Your task to perform on an android device: search for starred emails in the gmail app Image 0: 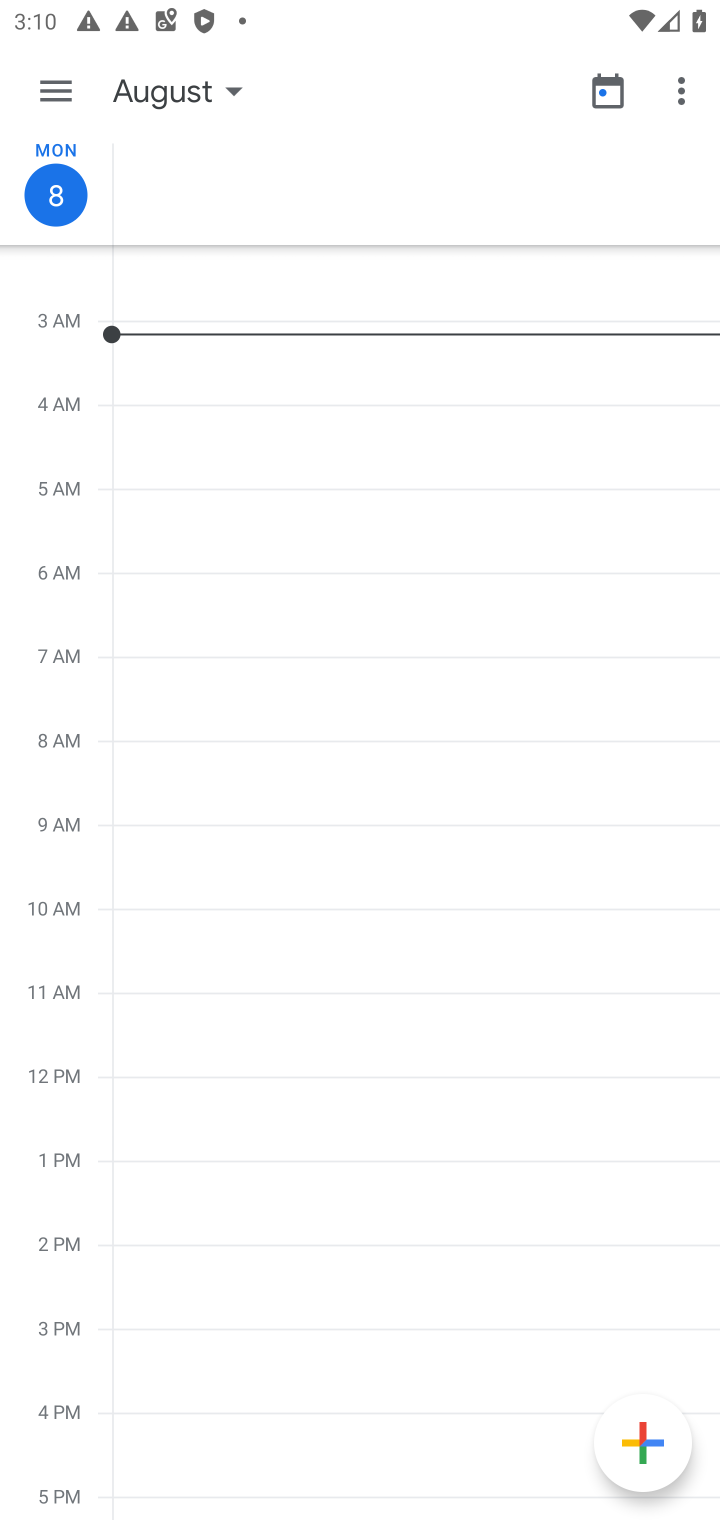
Step 0: press back button
Your task to perform on an android device: search for starred emails in the gmail app Image 1: 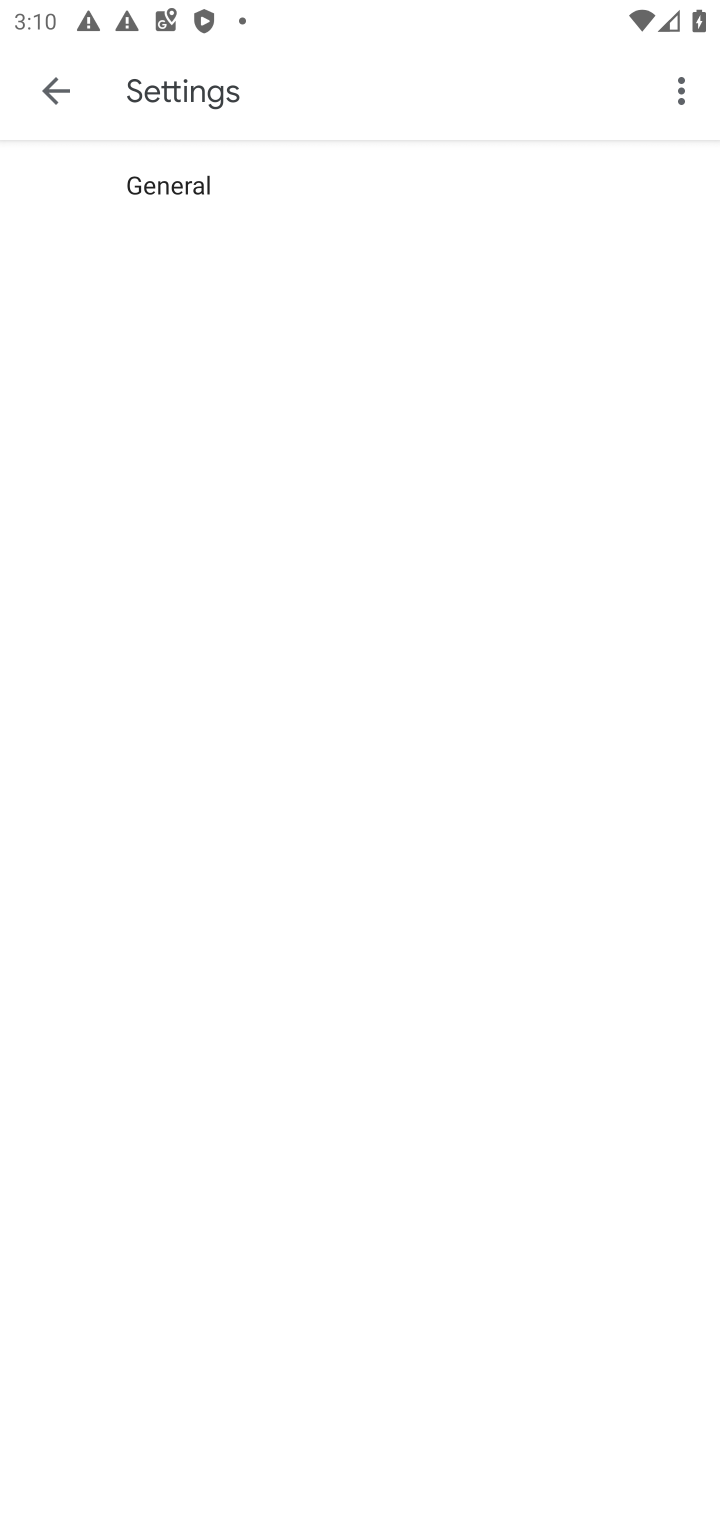
Step 1: press back button
Your task to perform on an android device: search for starred emails in the gmail app Image 2: 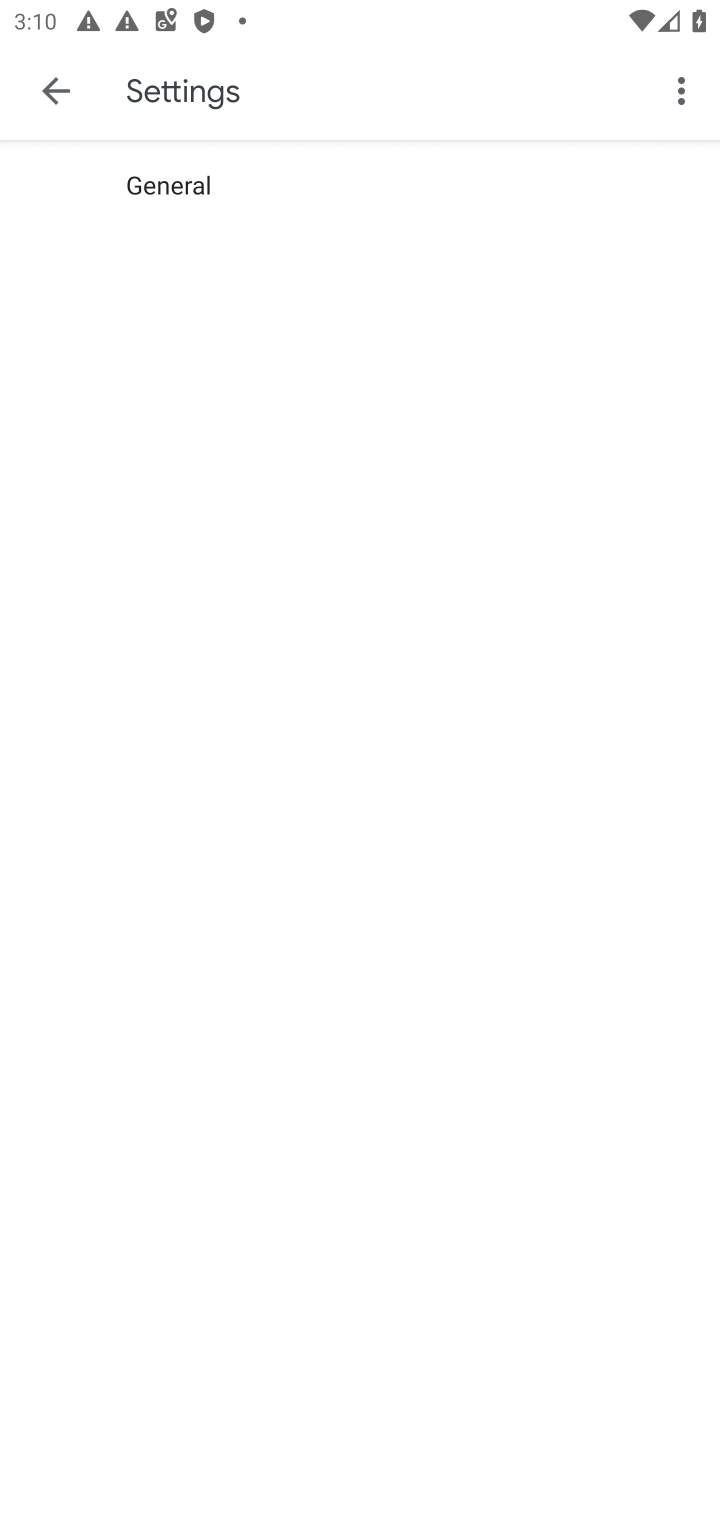
Step 2: press back button
Your task to perform on an android device: search for starred emails in the gmail app Image 3: 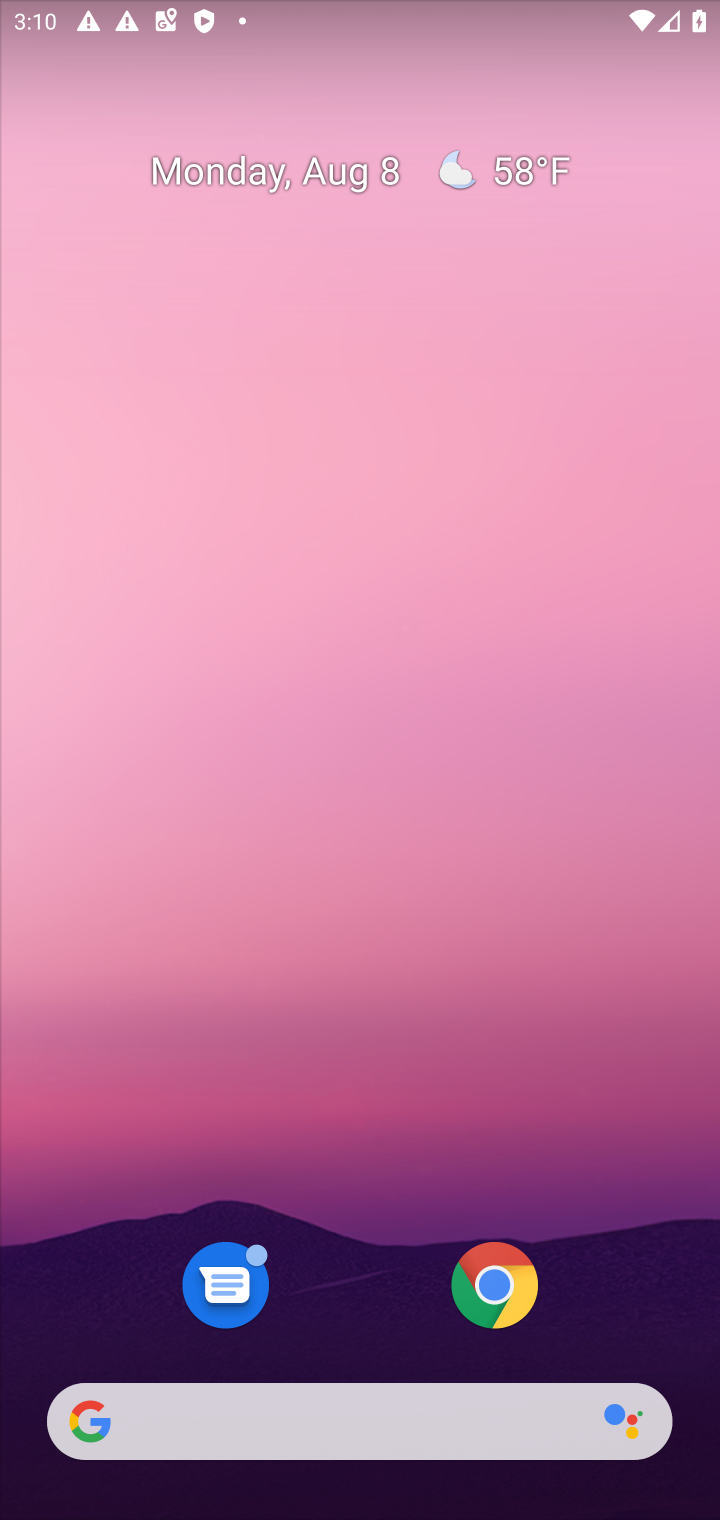
Step 3: press home button
Your task to perform on an android device: search for starred emails in the gmail app Image 4: 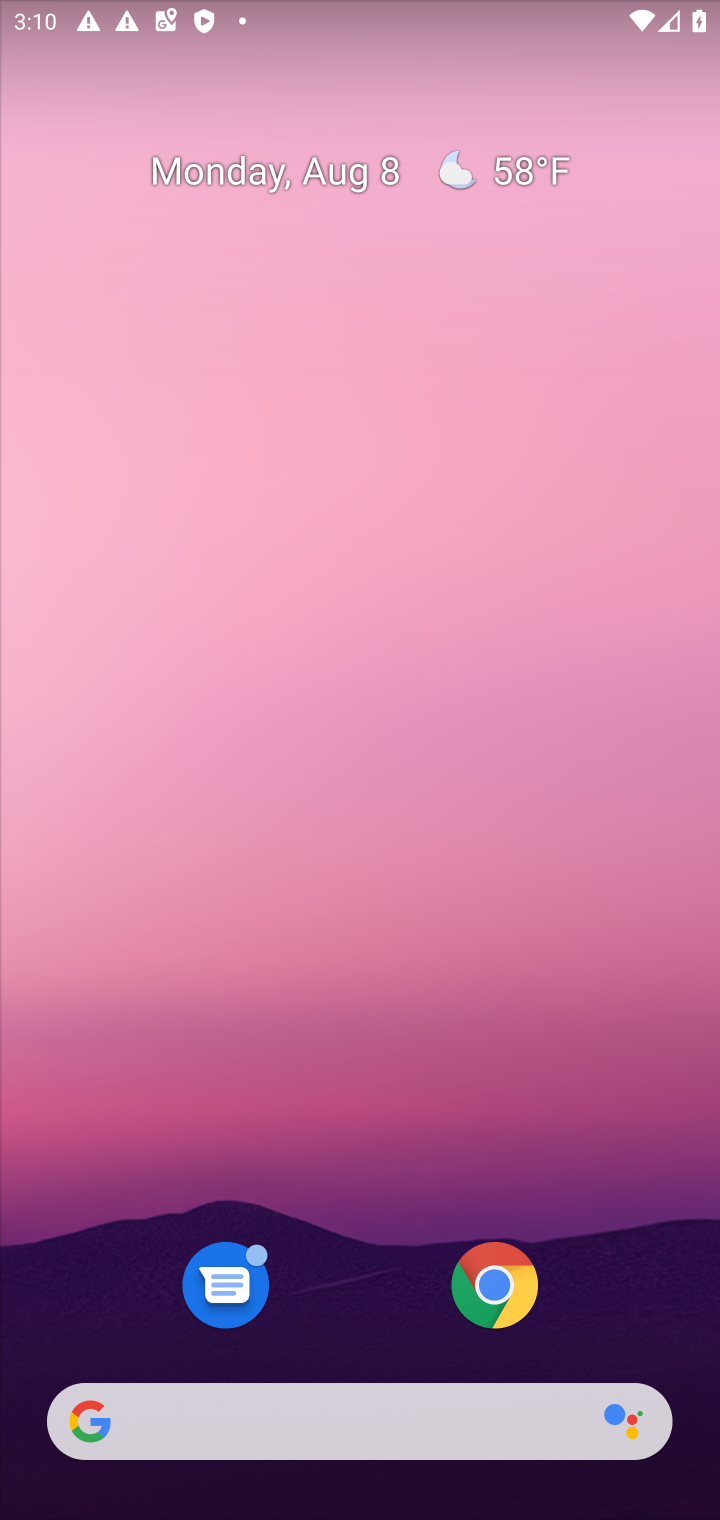
Step 4: drag from (505, 156) to (531, 7)
Your task to perform on an android device: search for starred emails in the gmail app Image 5: 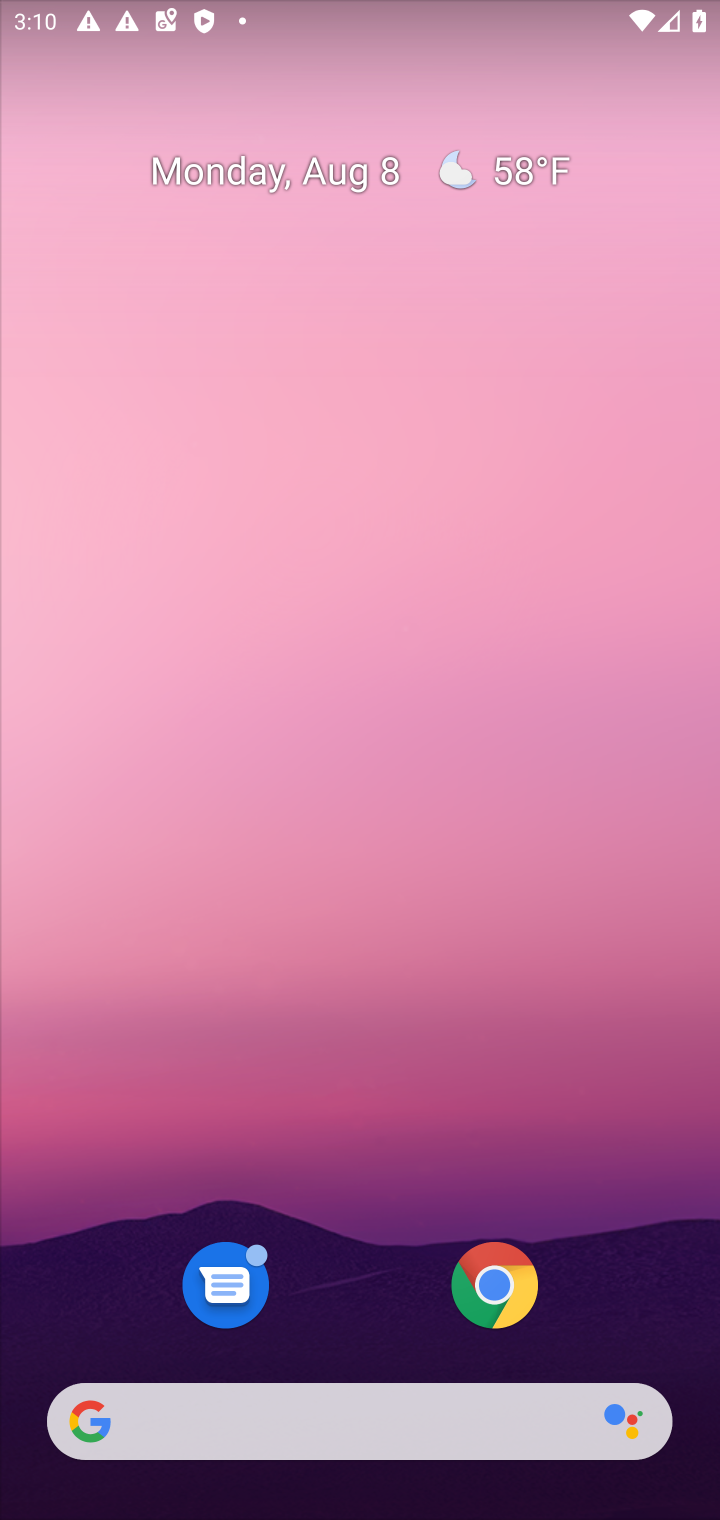
Step 5: drag from (445, 766) to (594, 79)
Your task to perform on an android device: search for starred emails in the gmail app Image 6: 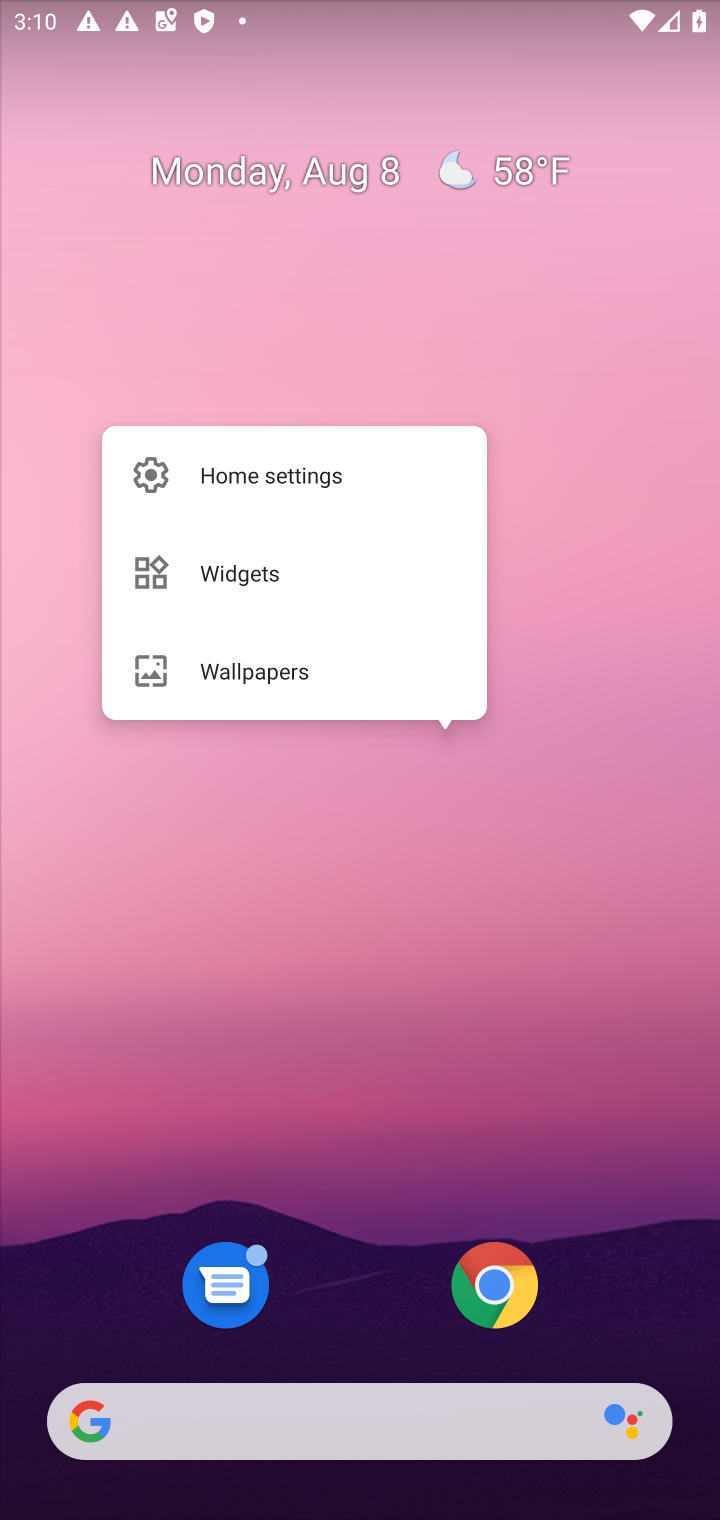
Step 6: click (369, 1266)
Your task to perform on an android device: search for starred emails in the gmail app Image 7: 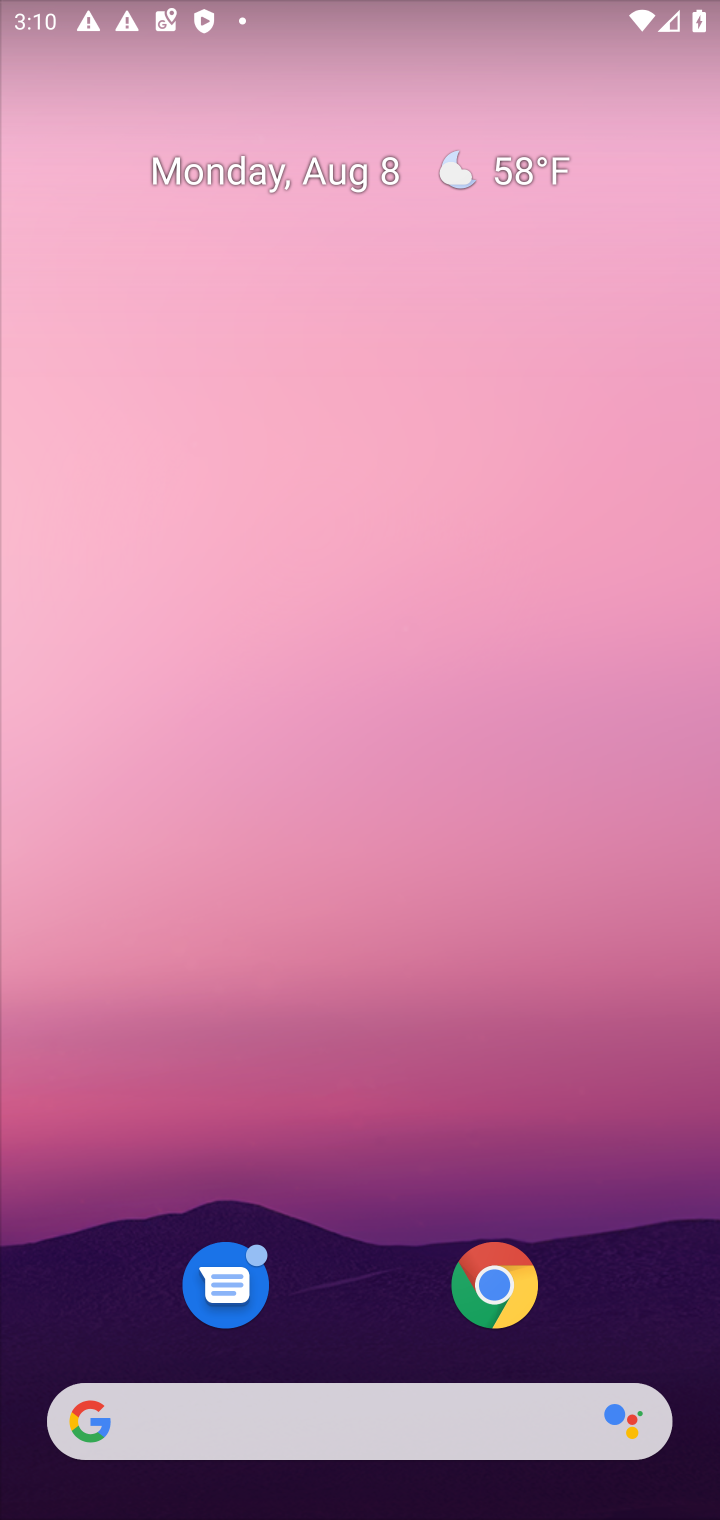
Step 7: drag from (453, 889) to (662, 75)
Your task to perform on an android device: search for starred emails in the gmail app Image 8: 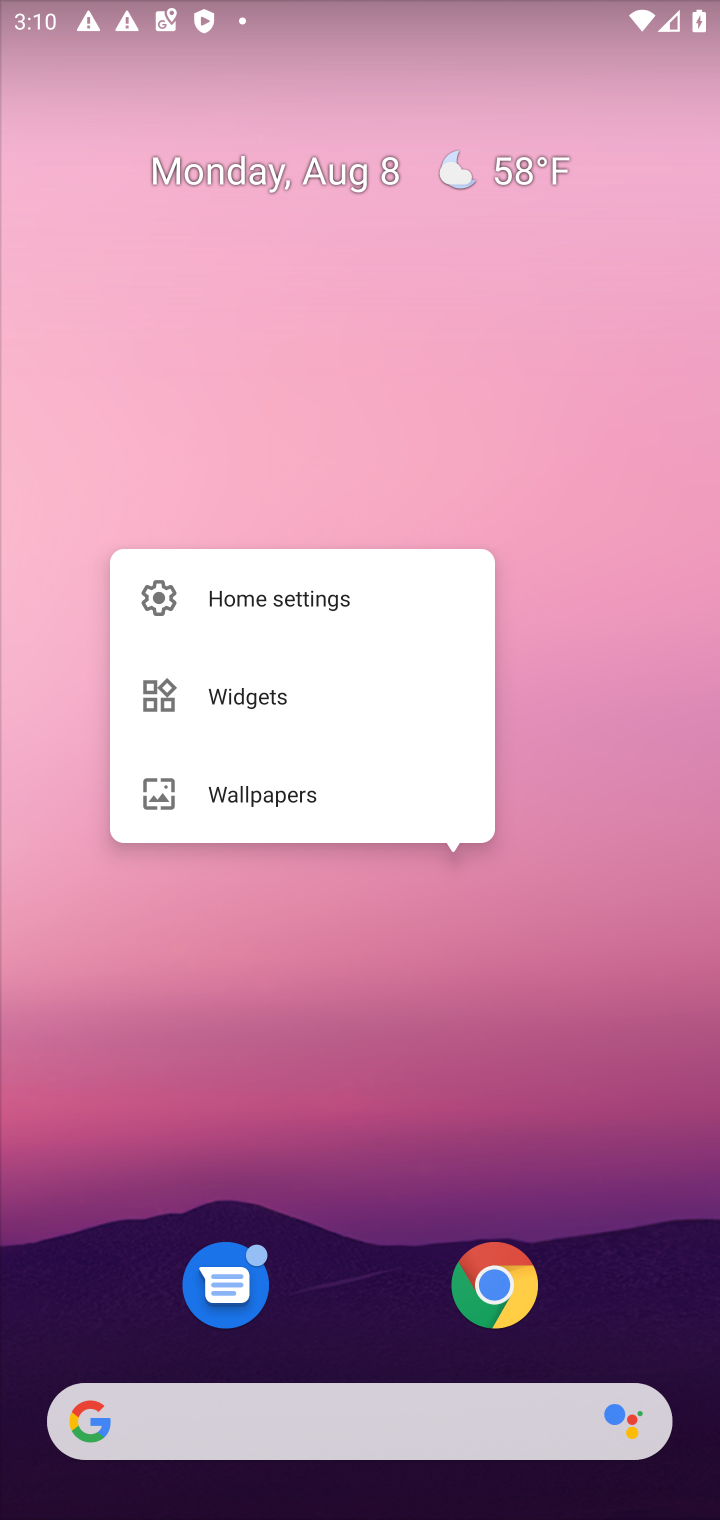
Step 8: click (500, 964)
Your task to perform on an android device: search for starred emails in the gmail app Image 9: 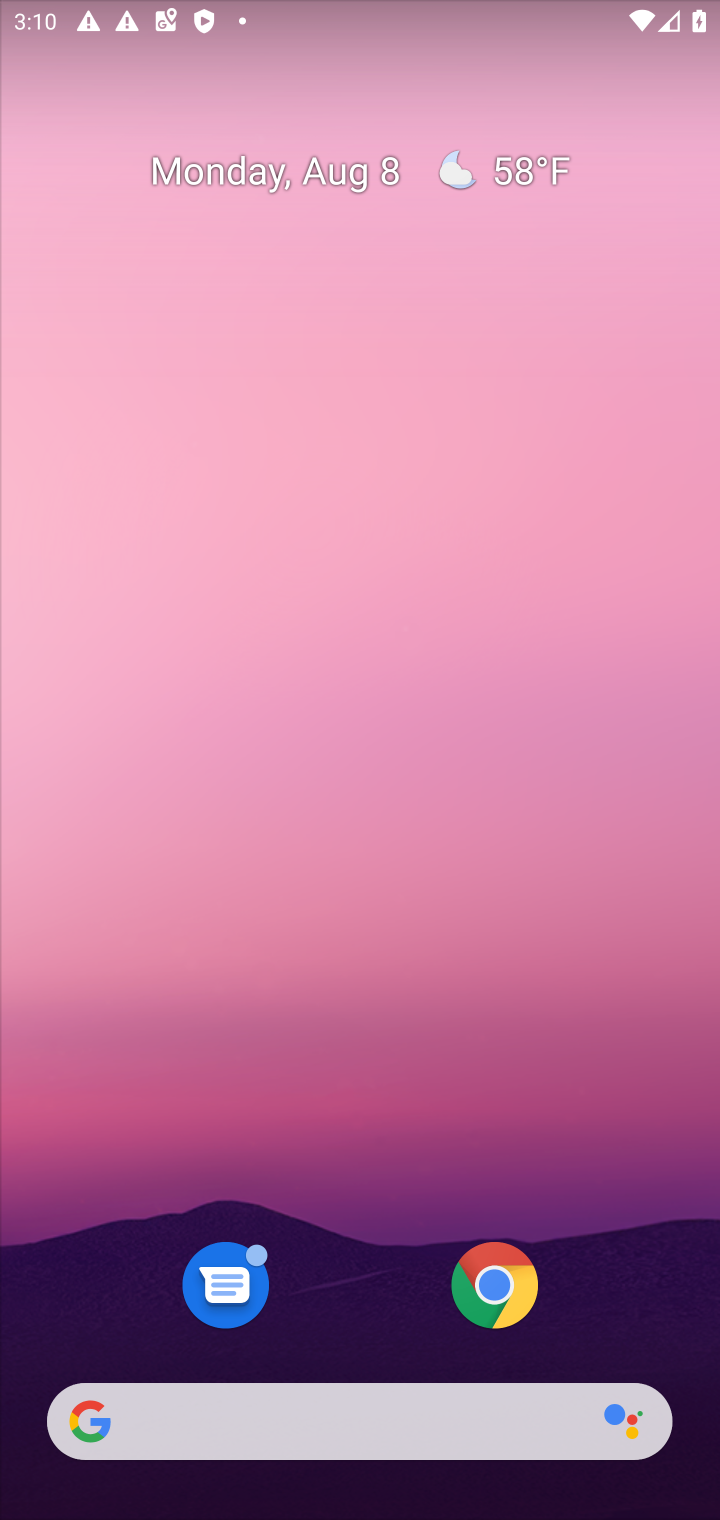
Step 9: drag from (484, 743) to (651, 107)
Your task to perform on an android device: search for starred emails in the gmail app Image 10: 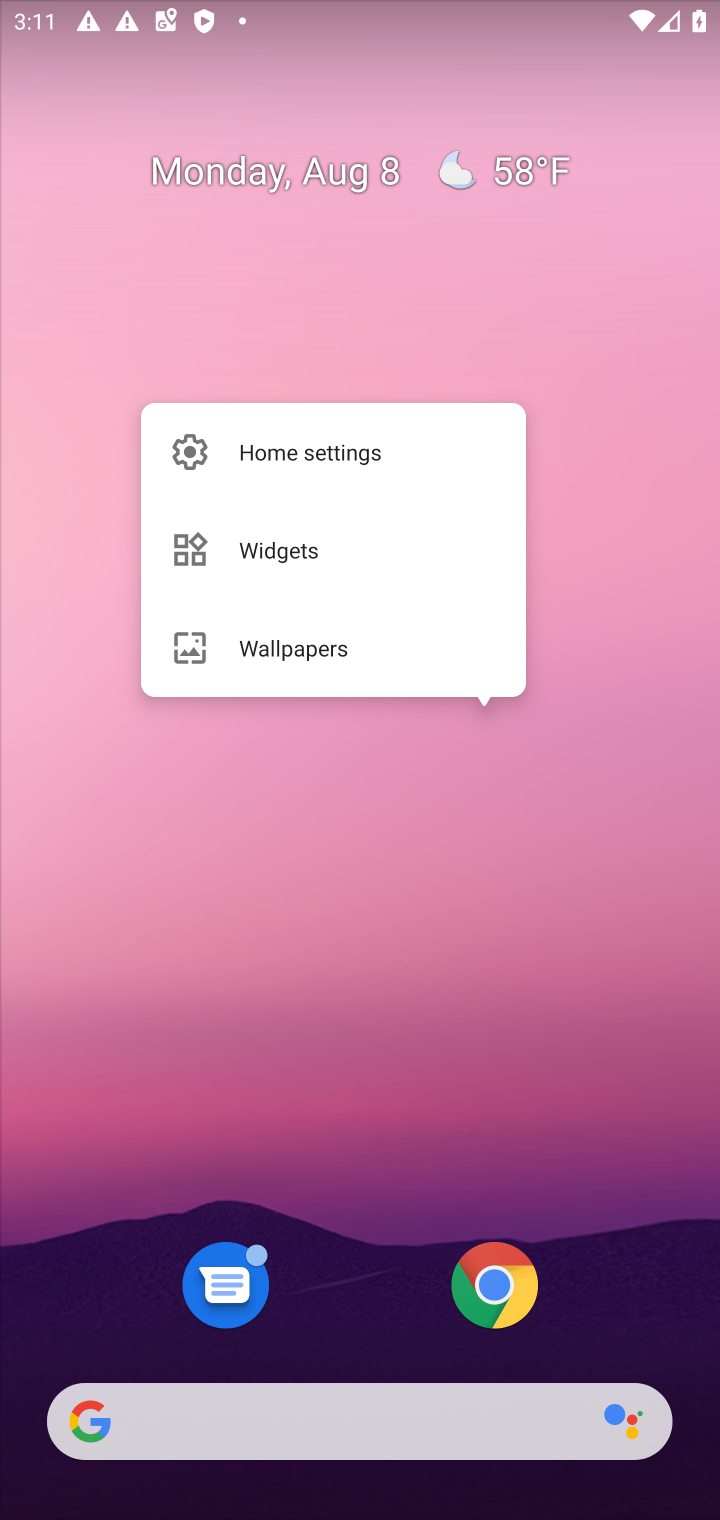
Step 10: click (637, 996)
Your task to perform on an android device: search for starred emails in the gmail app Image 11: 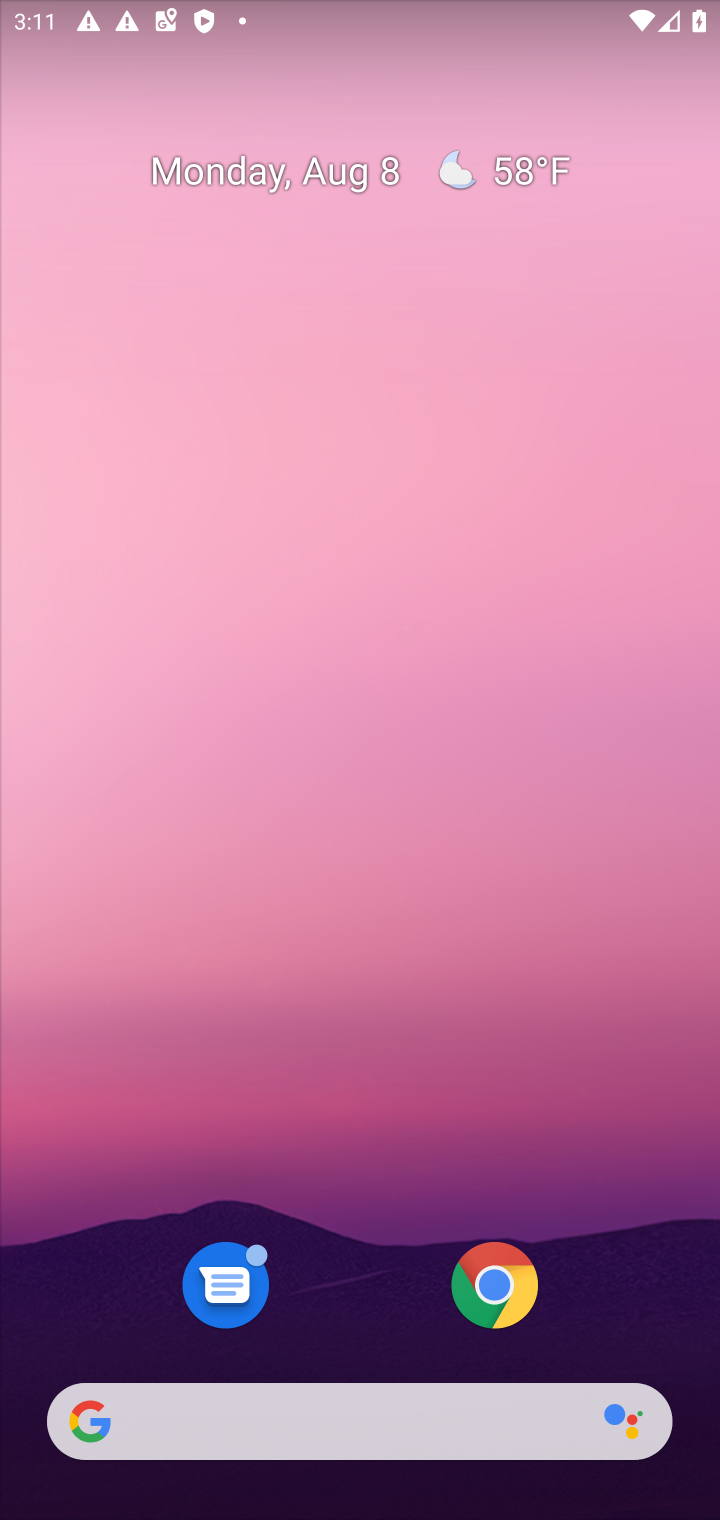
Step 11: drag from (401, 965) to (597, 0)
Your task to perform on an android device: search for starred emails in the gmail app Image 12: 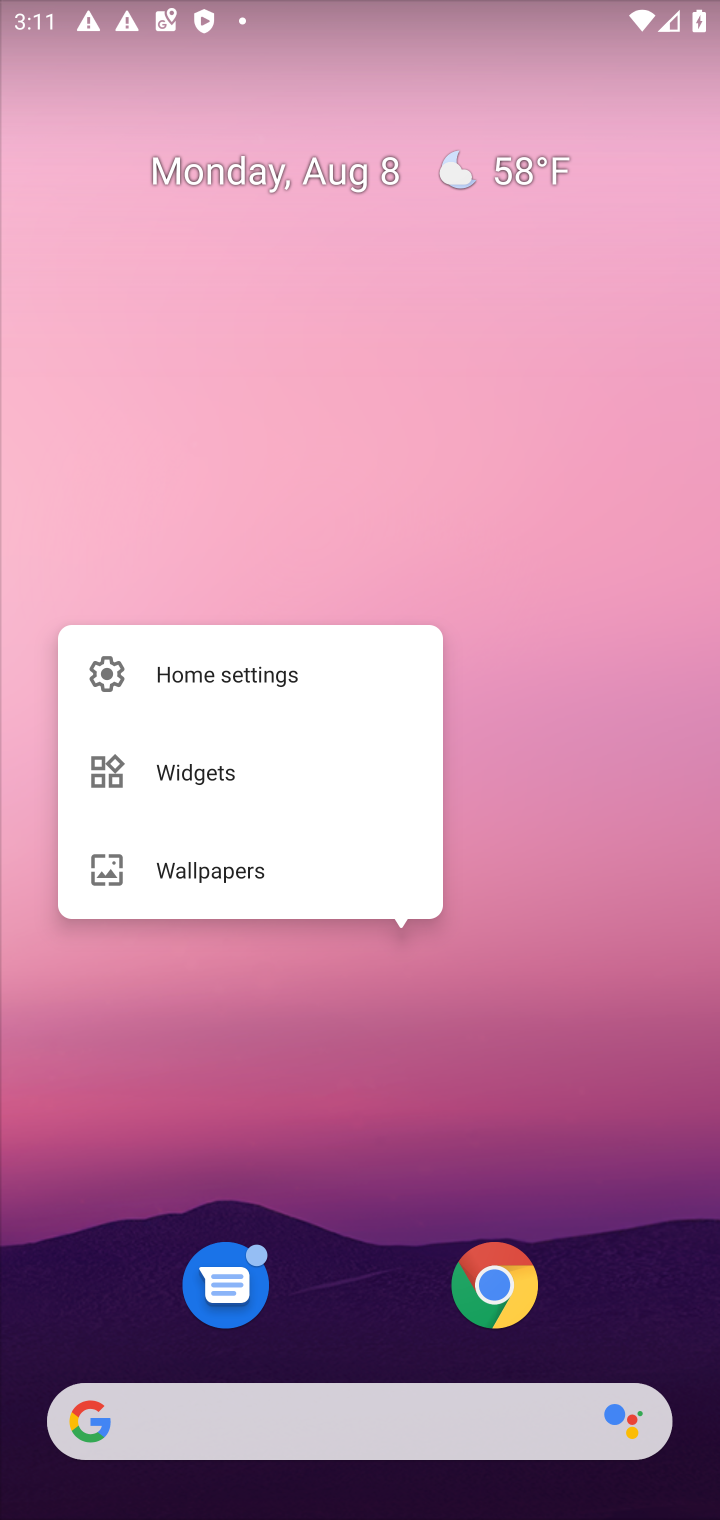
Step 12: click (330, 1289)
Your task to perform on an android device: search for starred emails in the gmail app Image 13: 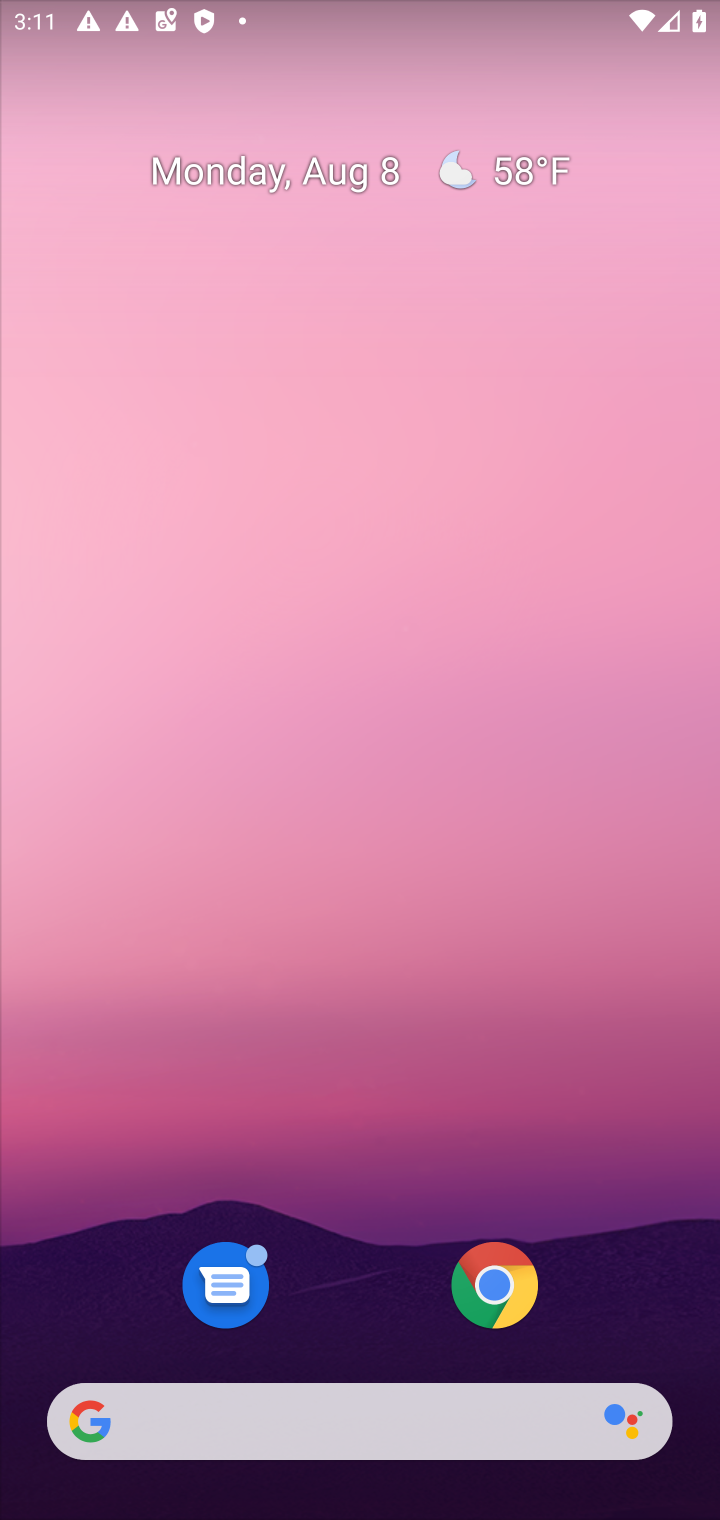
Step 13: drag from (387, 989) to (514, 38)
Your task to perform on an android device: search for starred emails in the gmail app Image 14: 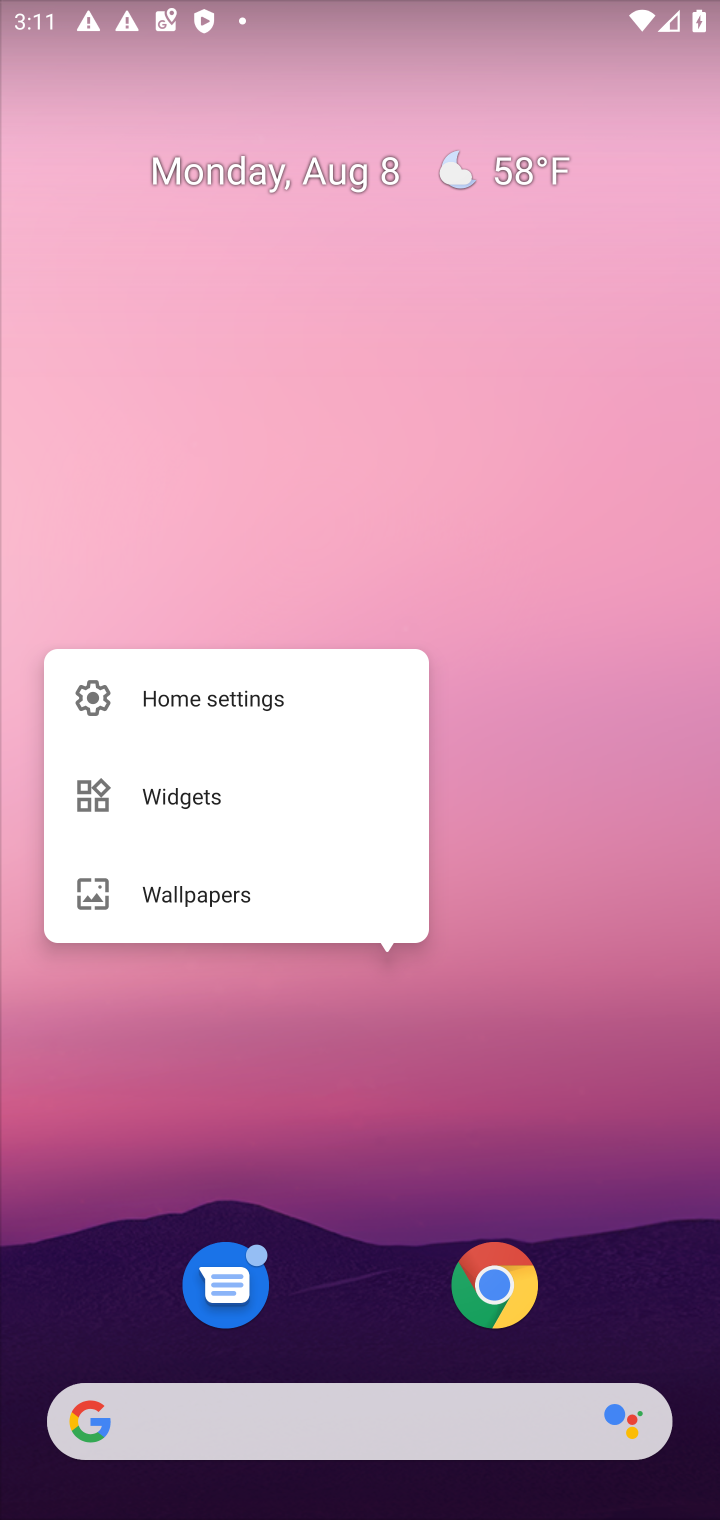
Step 14: click (353, 1239)
Your task to perform on an android device: search for starred emails in the gmail app Image 15: 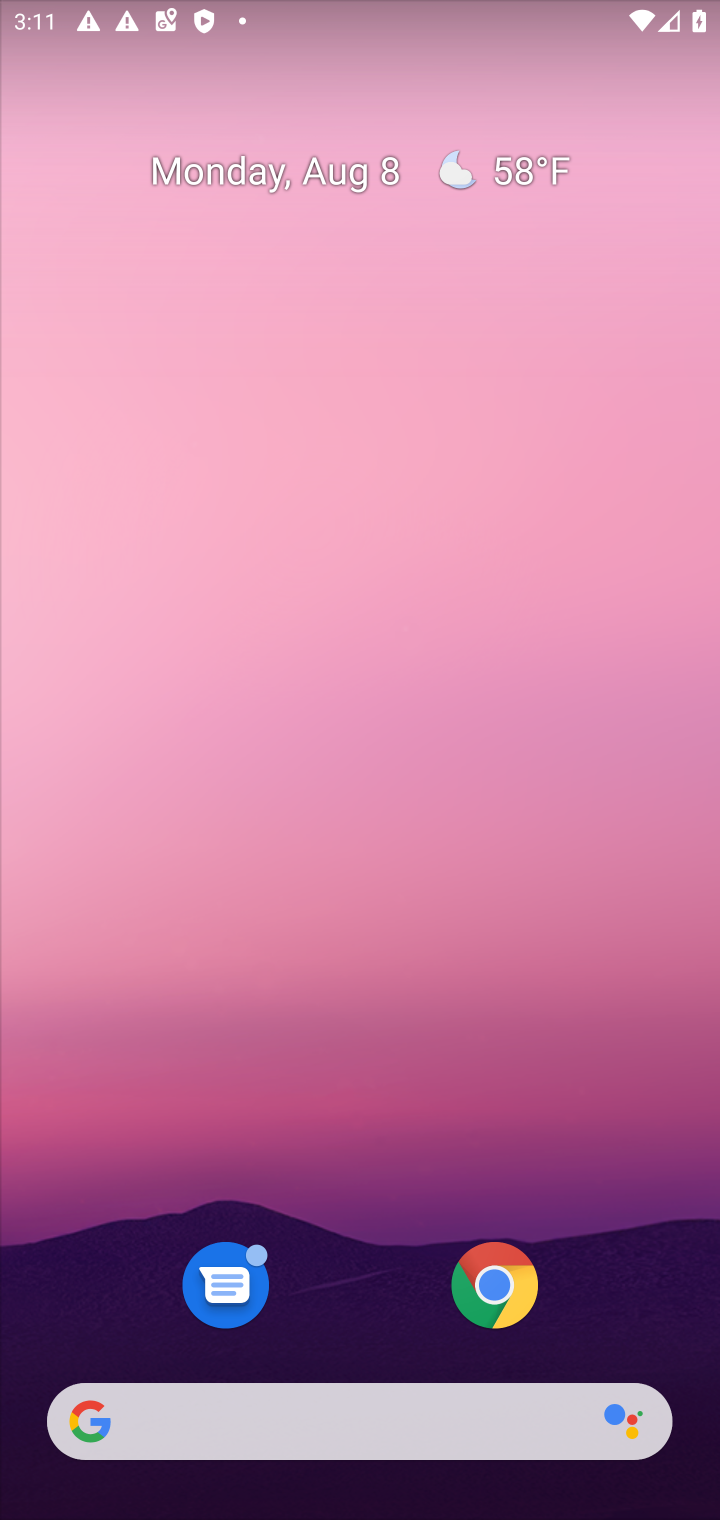
Step 15: drag from (402, 706) to (311, 1170)
Your task to perform on an android device: search for starred emails in the gmail app Image 16: 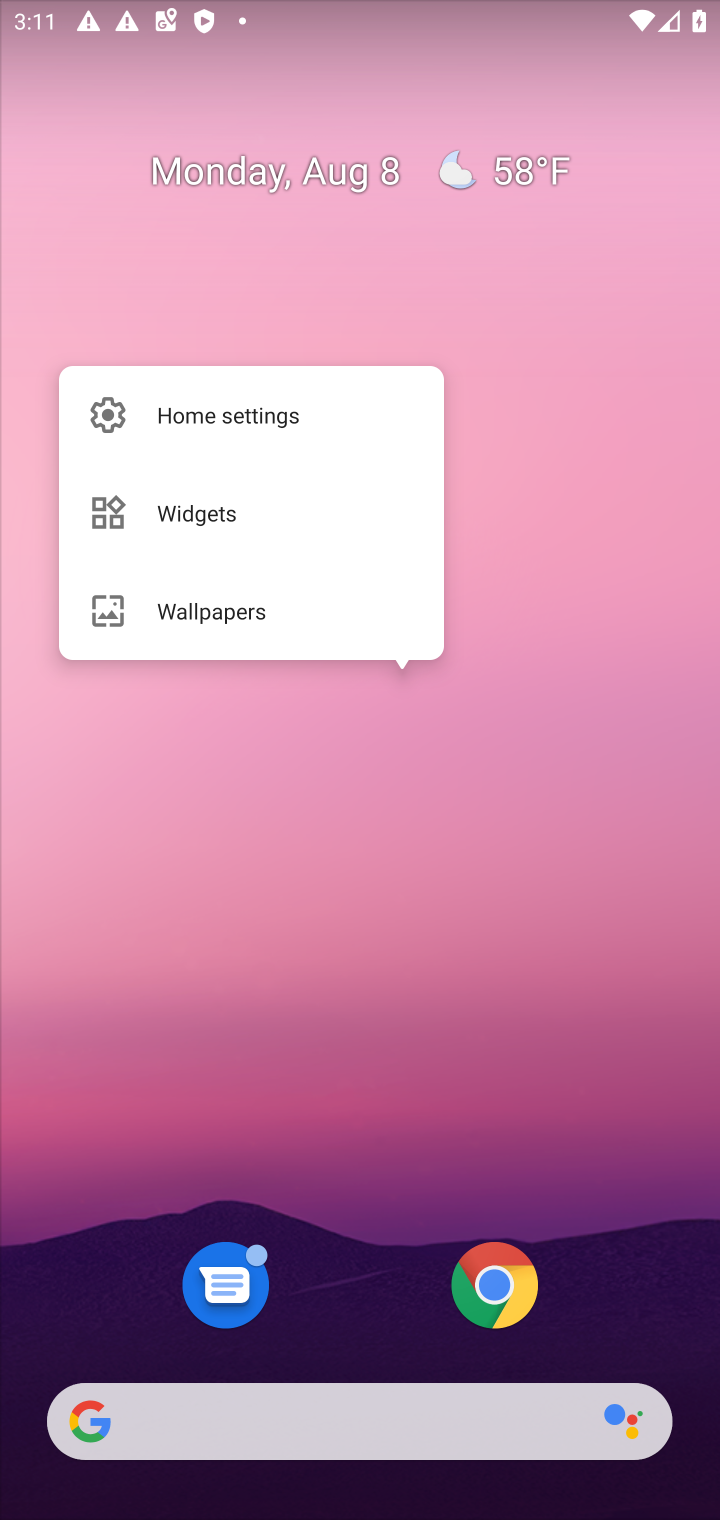
Step 16: drag from (328, 1481) to (585, 72)
Your task to perform on an android device: search for starred emails in the gmail app Image 17: 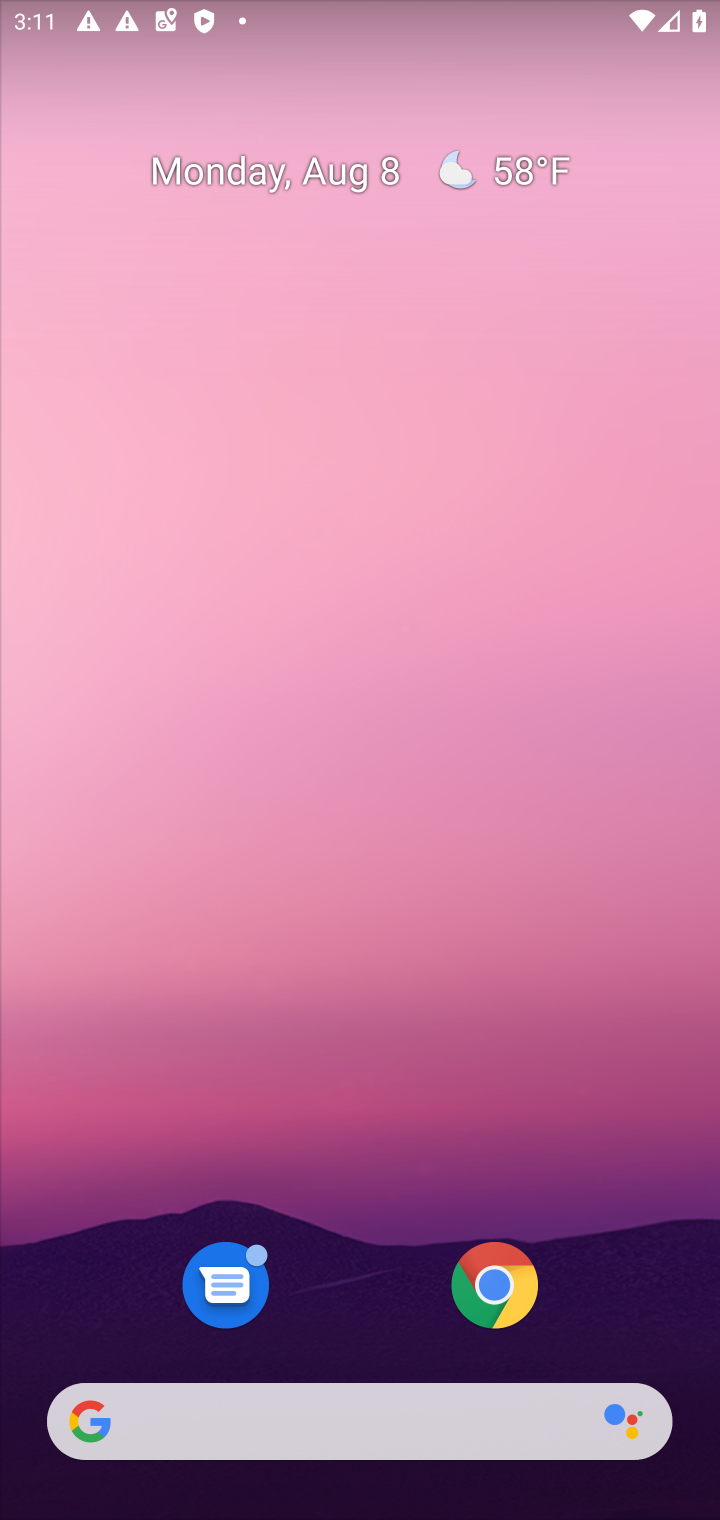
Step 17: drag from (322, 1493) to (539, 0)
Your task to perform on an android device: search for starred emails in the gmail app Image 18: 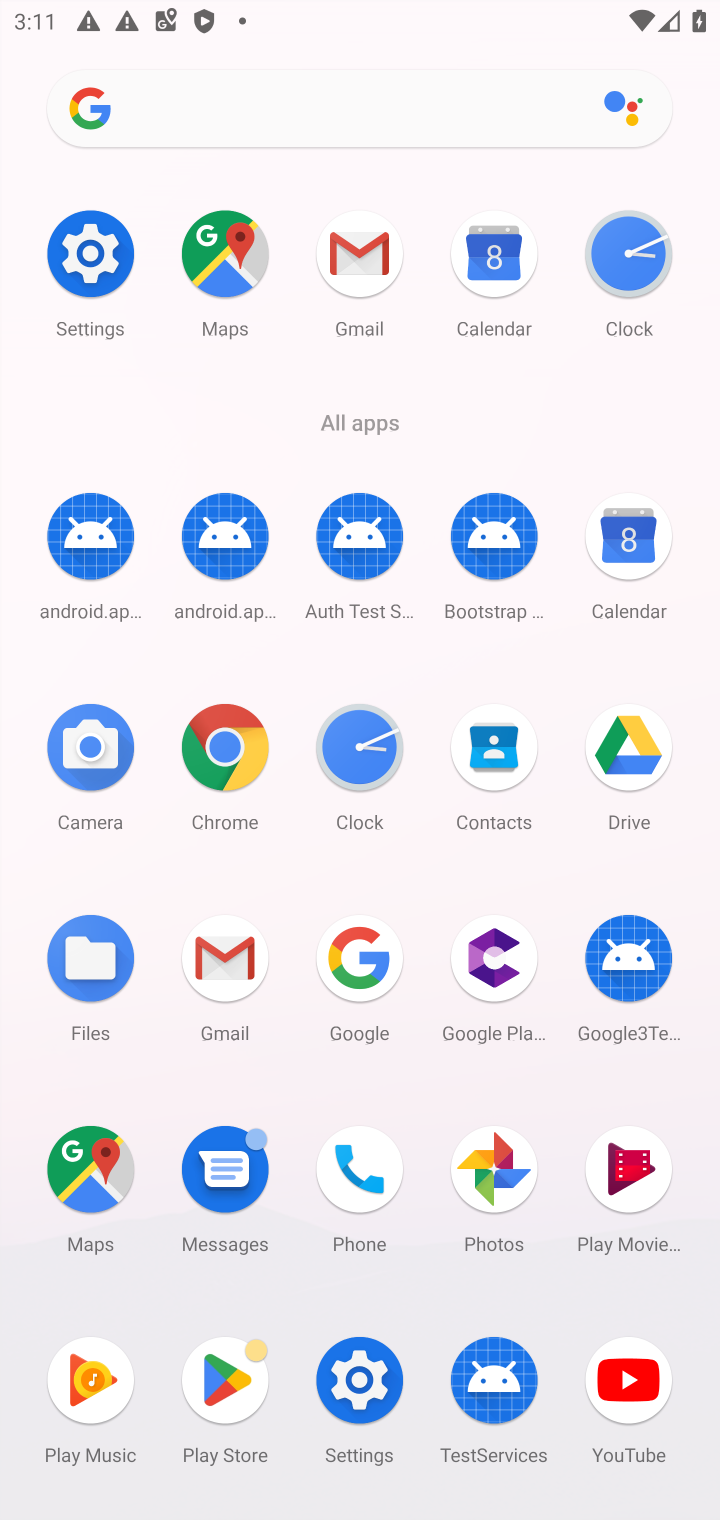
Step 18: click (367, 260)
Your task to perform on an android device: search for starred emails in the gmail app Image 19: 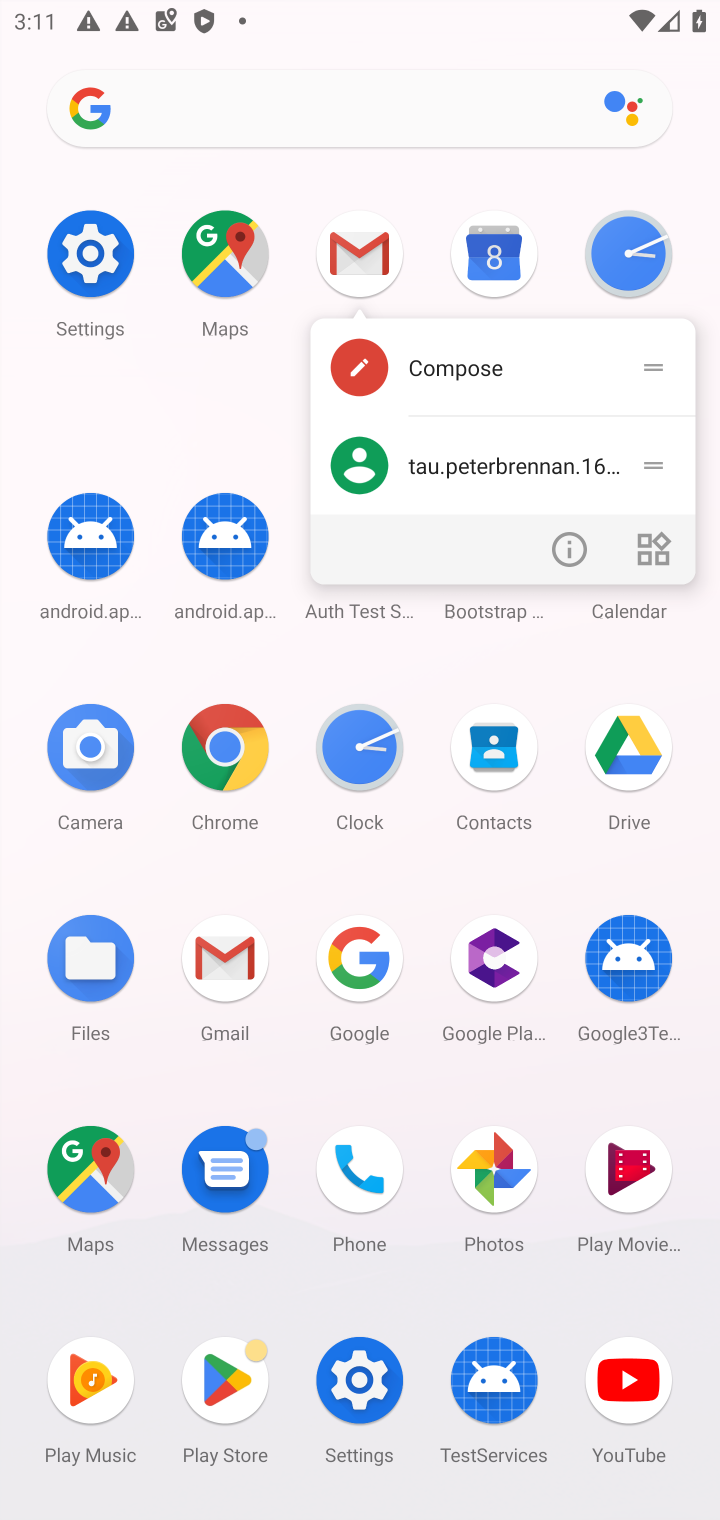
Step 19: click (367, 260)
Your task to perform on an android device: search for starred emails in the gmail app Image 20: 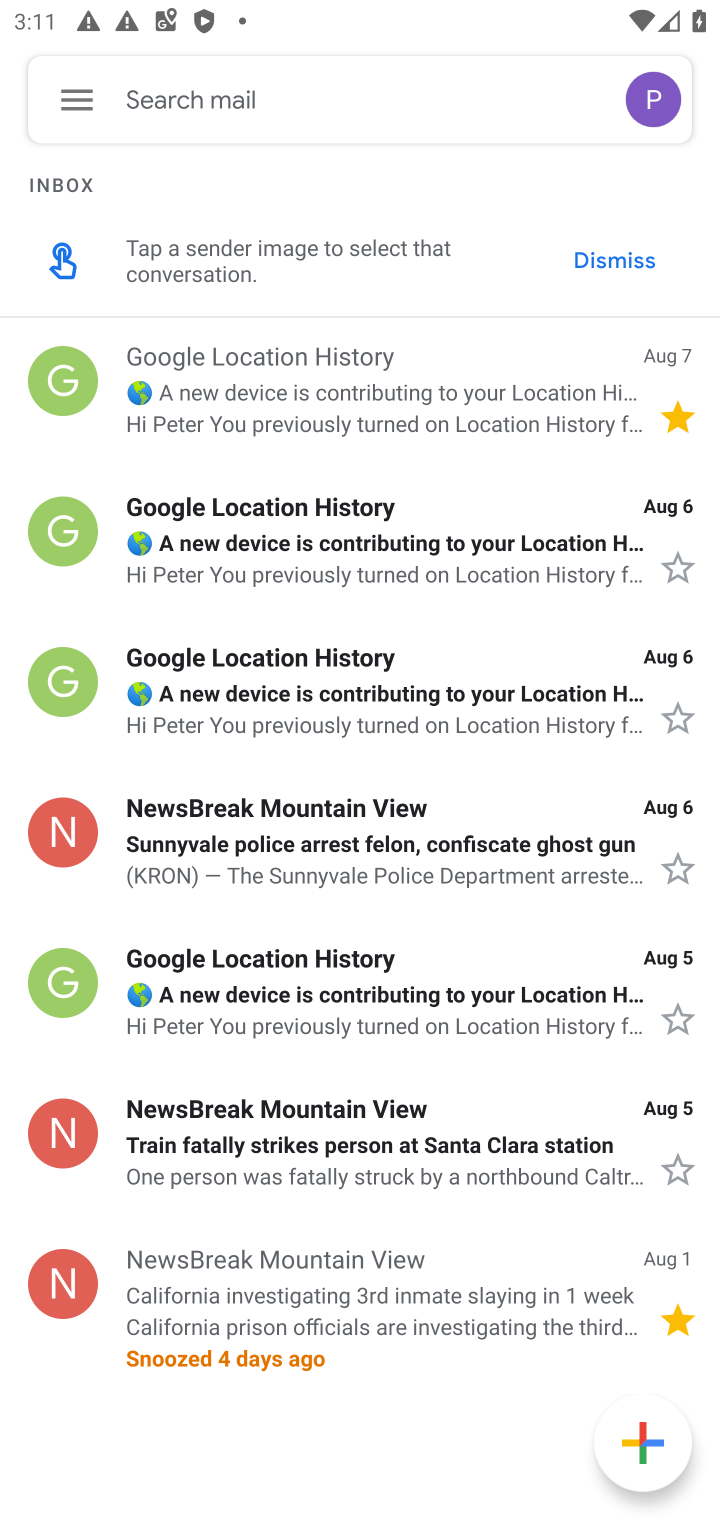
Step 20: click (55, 81)
Your task to perform on an android device: search for starred emails in the gmail app Image 21: 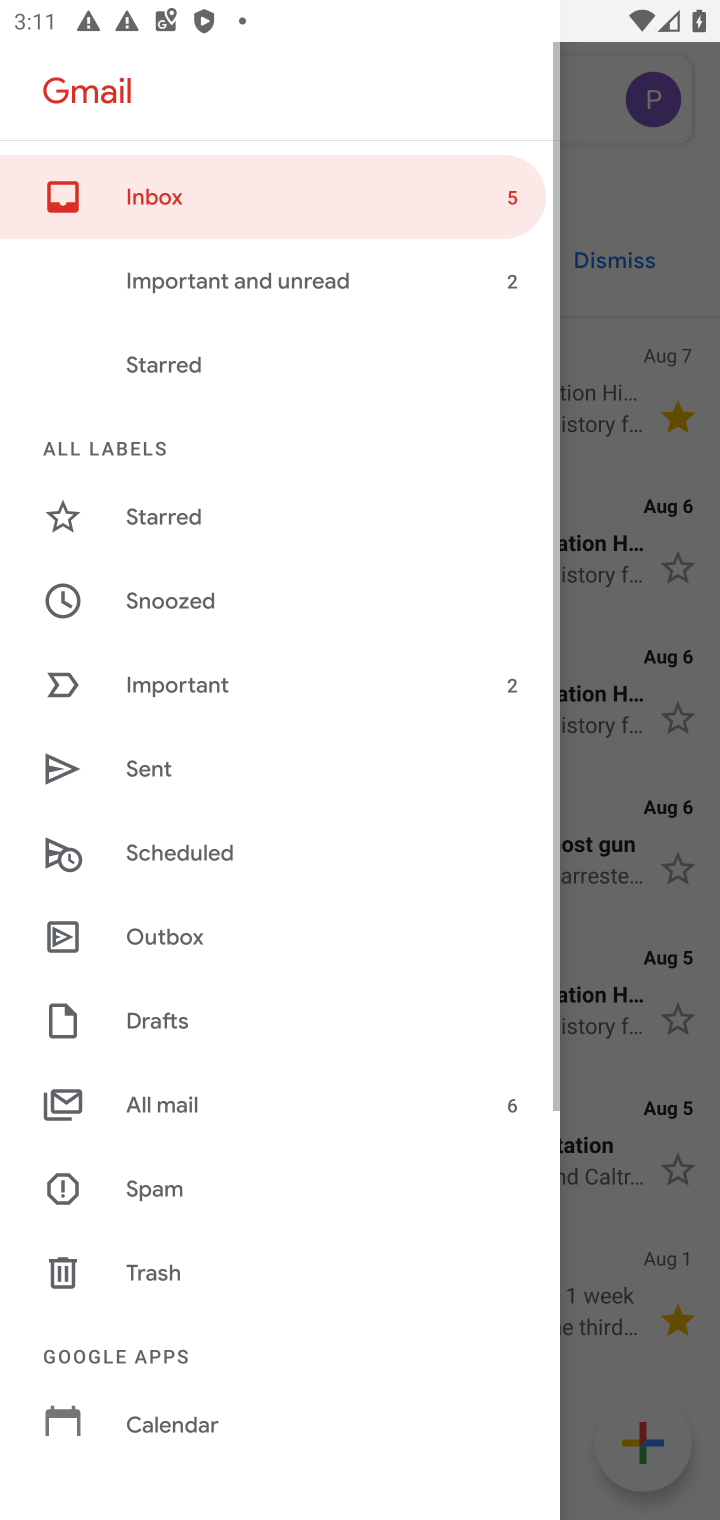
Step 21: click (190, 528)
Your task to perform on an android device: search for starred emails in the gmail app Image 22: 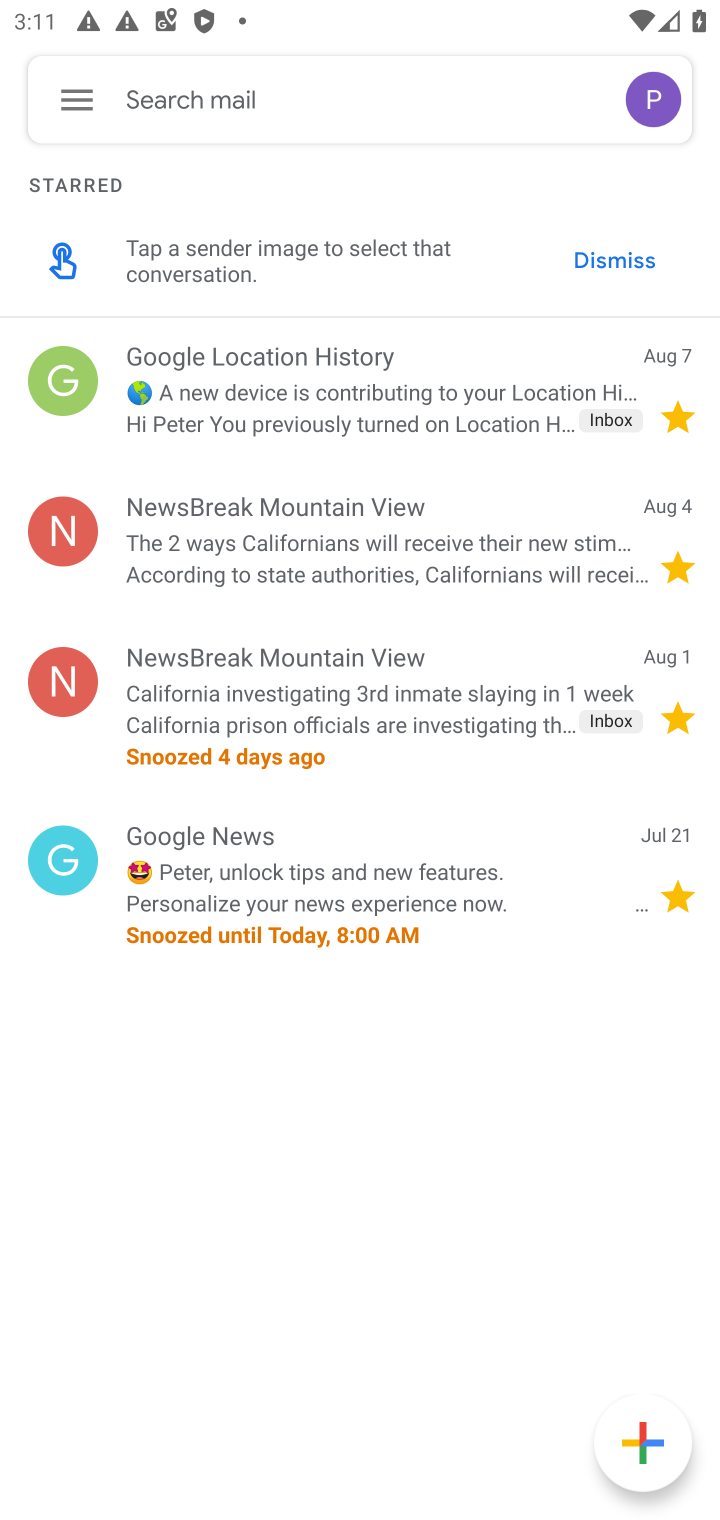
Step 22: task complete